Your task to perform on an android device: see tabs open on other devices in the chrome app Image 0: 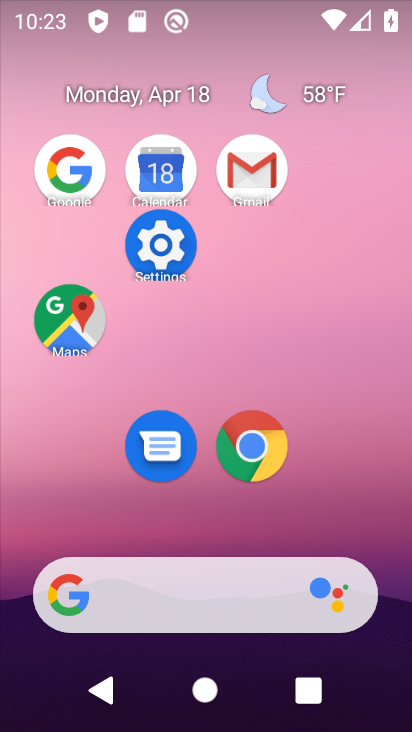
Step 0: click (266, 448)
Your task to perform on an android device: see tabs open on other devices in the chrome app Image 1: 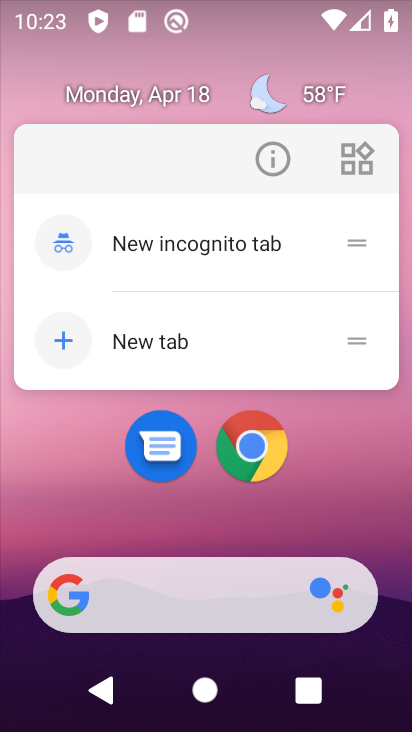
Step 1: click (262, 451)
Your task to perform on an android device: see tabs open on other devices in the chrome app Image 2: 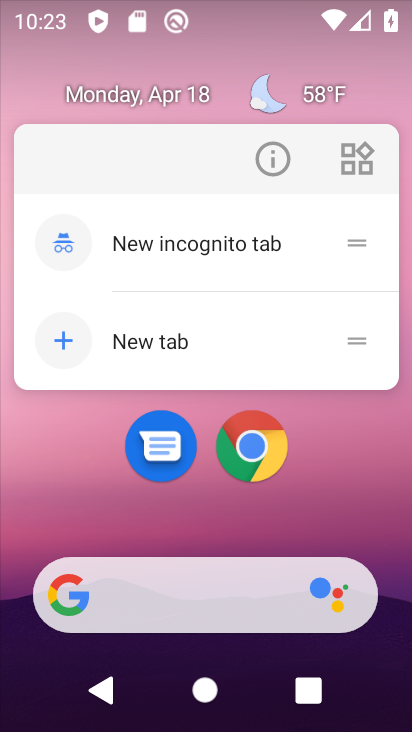
Step 2: click (278, 436)
Your task to perform on an android device: see tabs open on other devices in the chrome app Image 3: 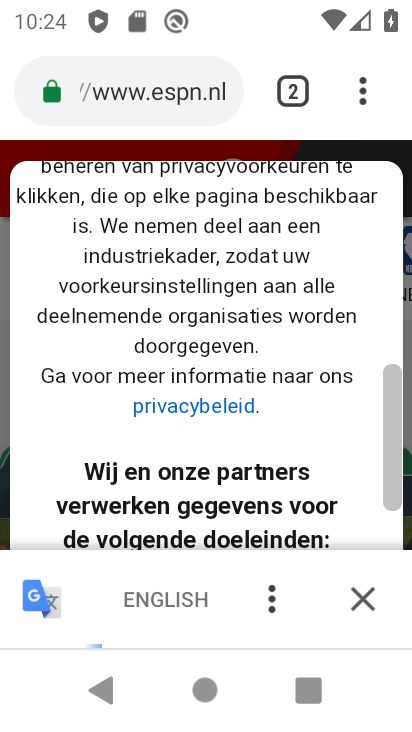
Step 3: click (358, 83)
Your task to perform on an android device: see tabs open on other devices in the chrome app Image 4: 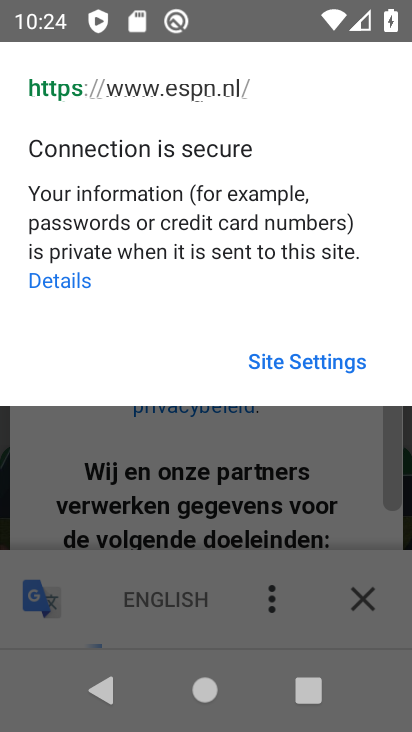
Step 4: click (37, 455)
Your task to perform on an android device: see tabs open on other devices in the chrome app Image 5: 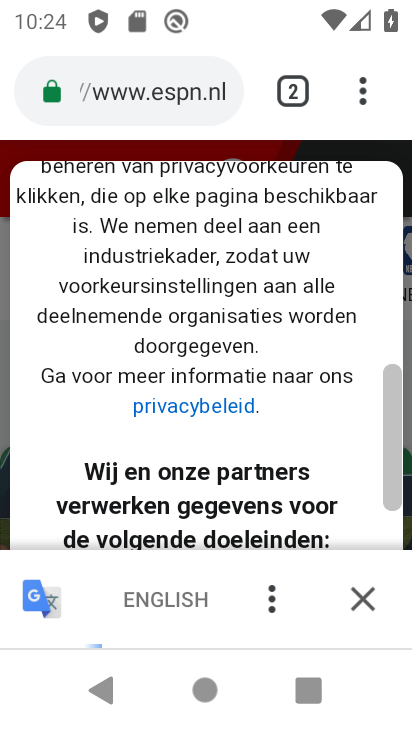
Step 5: task complete